Your task to perform on an android device: Go to sound settings Image 0: 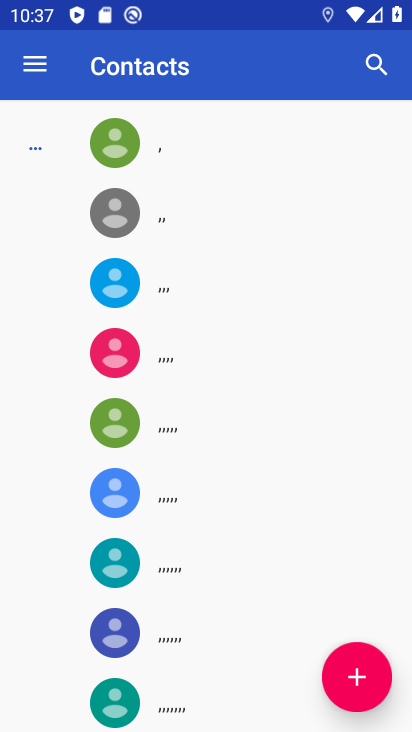
Step 0: press home button
Your task to perform on an android device: Go to sound settings Image 1: 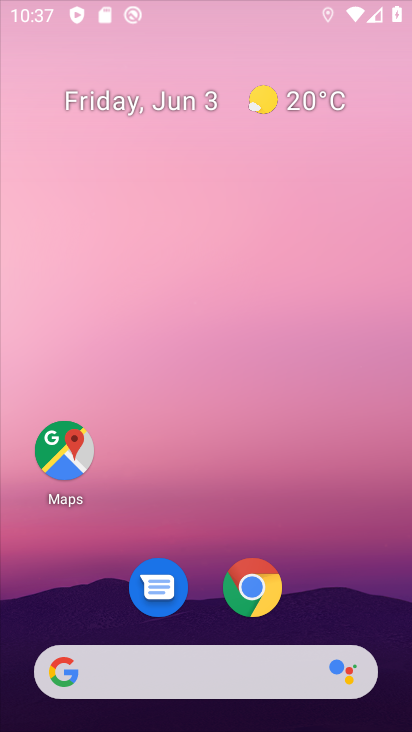
Step 1: drag from (269, 538) to (297, 45)
Your task to perform on an android device: Go to sound settings Image 2: 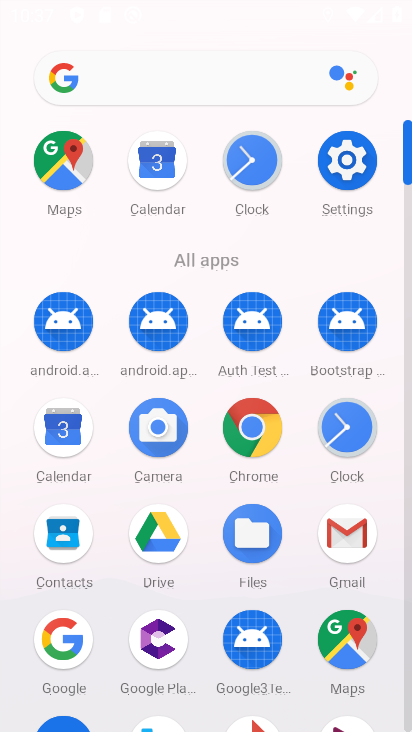
Step 2: click (344, 160)
Your task to perform on an android device: Go to sound settings Image 3: 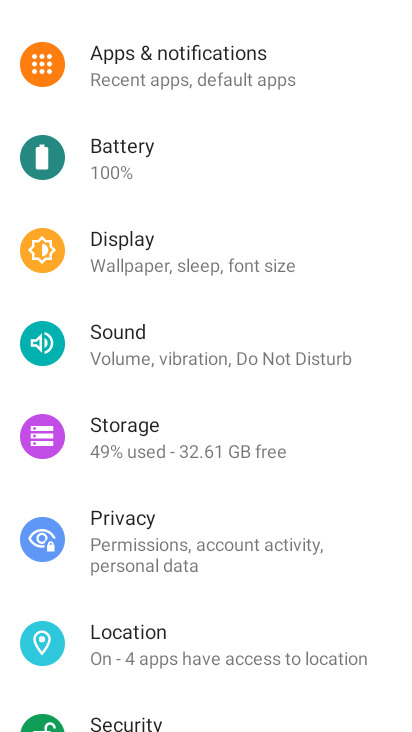
Step 3: click (204, 328)
Your task to perform on an android device: Go to sound settings Image 4: 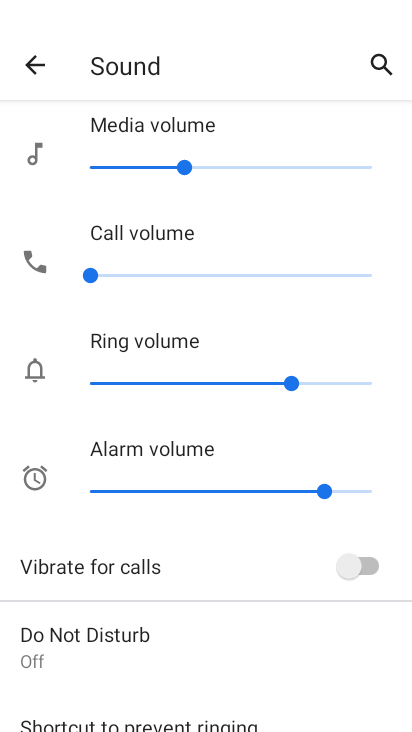
Step 4: task complete